Your task to perform on an android device: Open Google Chrome and open the bookmarks view Image 0: 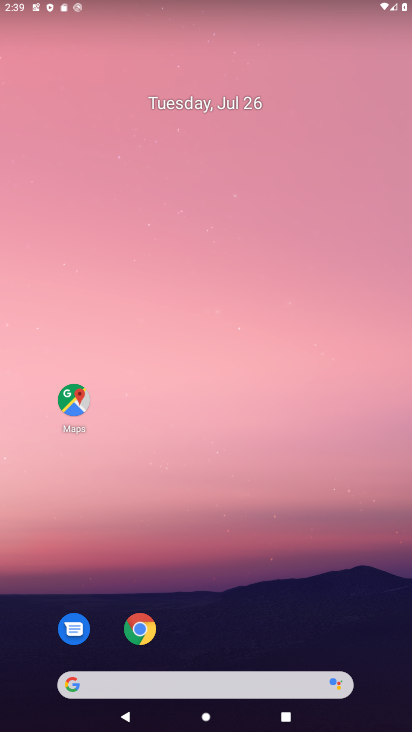
Step 0: click (147, 643)
Your task to perform on an android device: Open Google Chrome and open the bookmarks view Image 1: 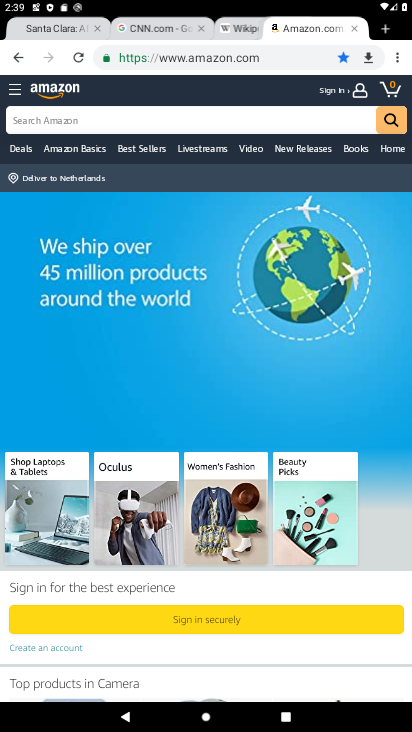
Step 1: click (389, 59)
Your task to perform on an android device: Open Google Chrome and open the bookmarks view Image 2: 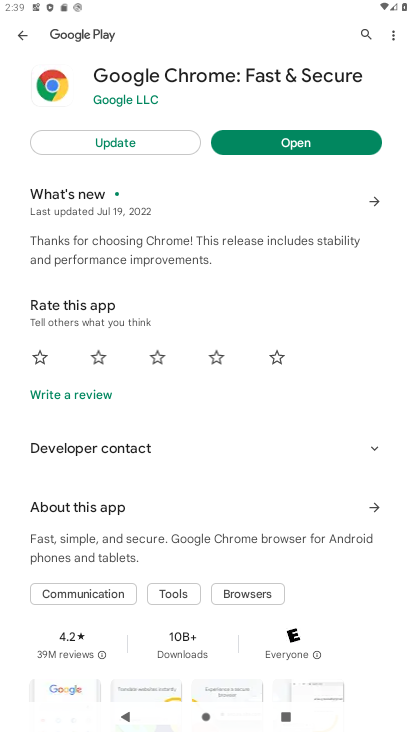
Step 2: click (302, 143)
Your task to perform on an android device: Open Google Chrome and open the bookmarks view Image 3: 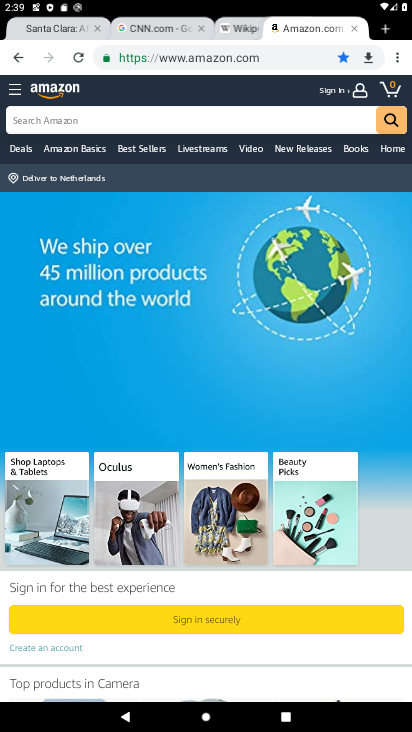
Step 3: task complete